Your task to perform on an android device: Search for Mexican restaurants on Maps Image 0: 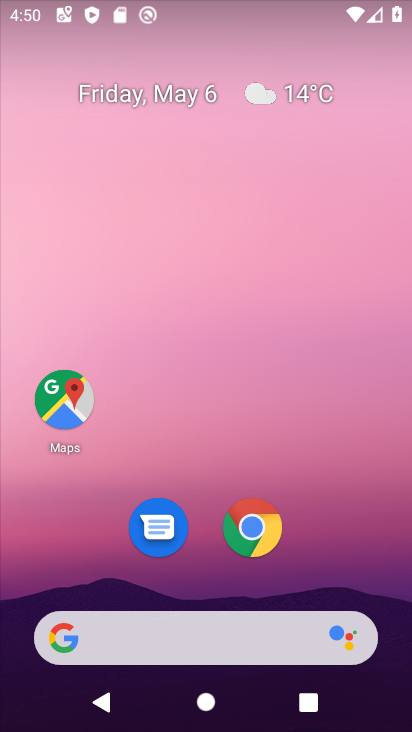
Step 0: drag from (341, 427) to (346, 132)
Your task to perform on an android device: Search for Mexican restaurants on Maps Image 1: 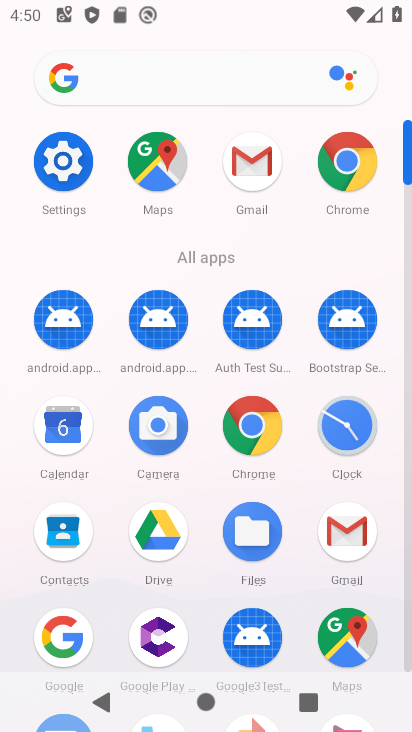
Step 1: click (164, 163)
Your task to perform on an android device: Search for Mexican restaurants on Maps Image 2: 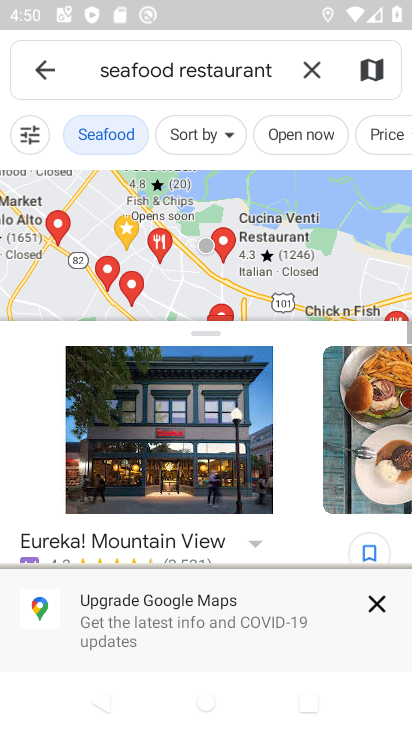
Step 2: click (319, 71)
Your task to perform on an android device: Search for Mexican restaurants on Maps Image 3: 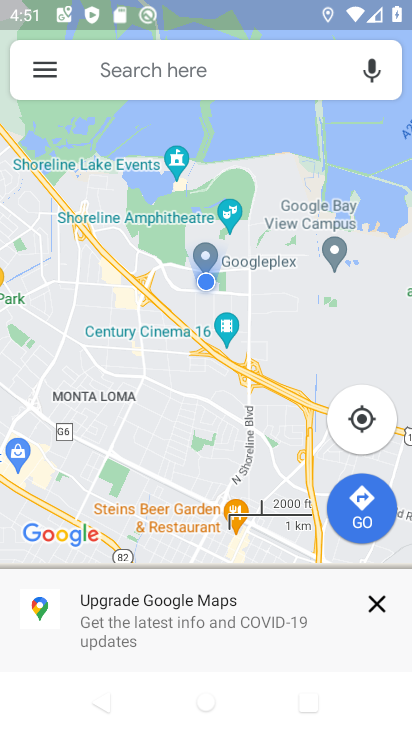
Step 3: click (277, 52)
Your task to perform on an android device: Search for Mexican restaurants on Maps Image 4: 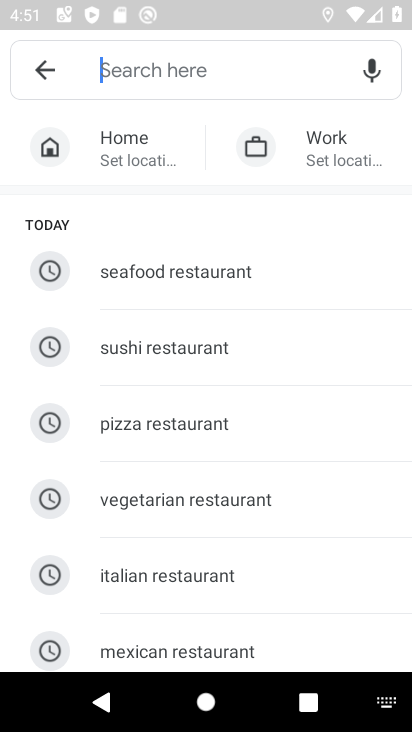
Step 4: click (174, 647)
Your task to perform on an android device: Search for Mexican restaurants on Maps Image 5: 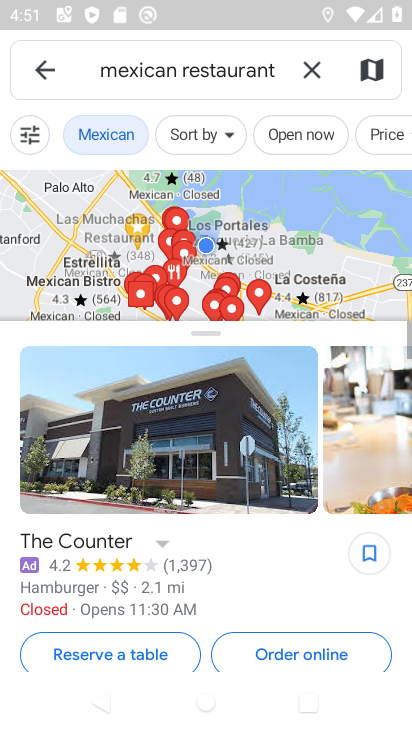
Step 5: task complete